Your task to perform on an android device: Go to network settings Image 0: 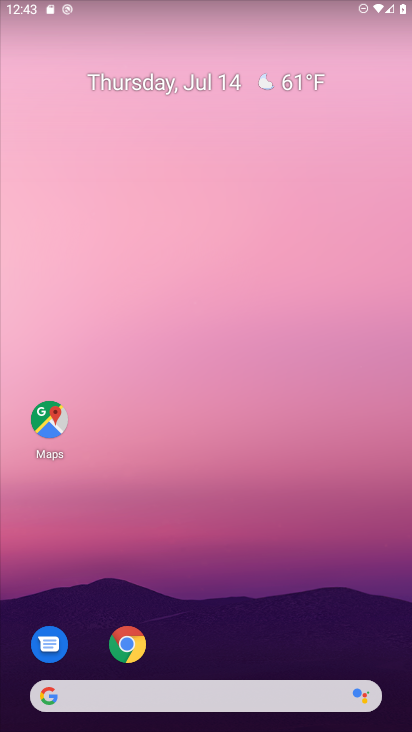
Step 0: drag from (334, 584) to (186, 146)
Your task to perform on an android device: Go to network settings Image 1: 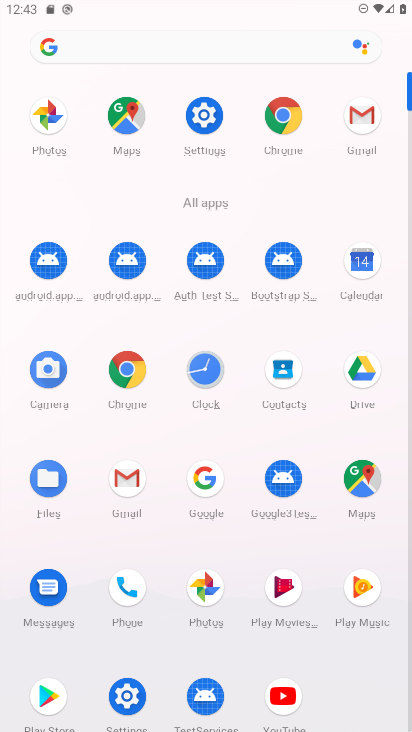
Step 1: click (195, 119)
Your task to perform on an android device: Go to network settings Image 2: 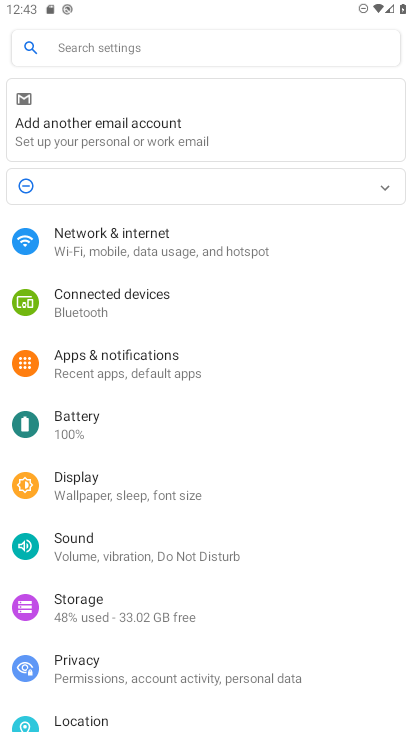
Step 2: click (122, 254)
Your task to perform on an android device: Go to network settings Image 3: 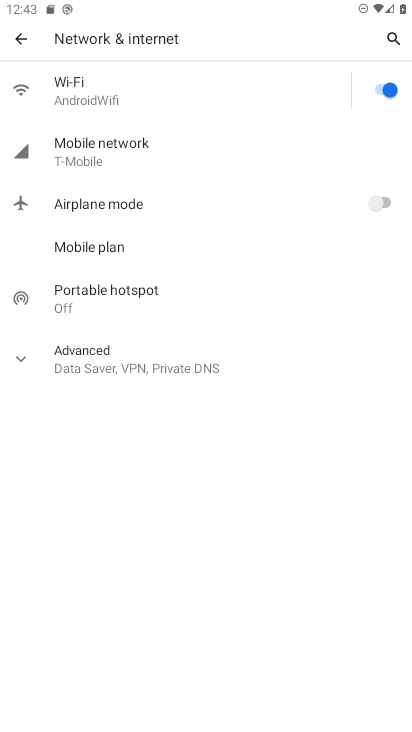
Step 3: click (168, 371)
Your task to perform on an android device: Go to network settings Image 4: 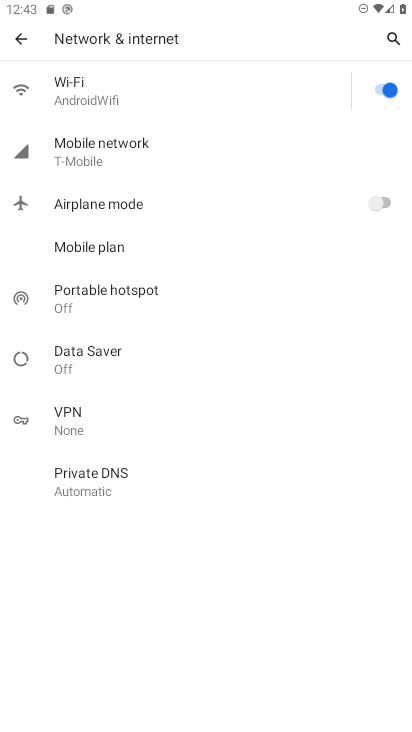
Step 4: task complete